Your task to perform on an android device: check storage Image 0: 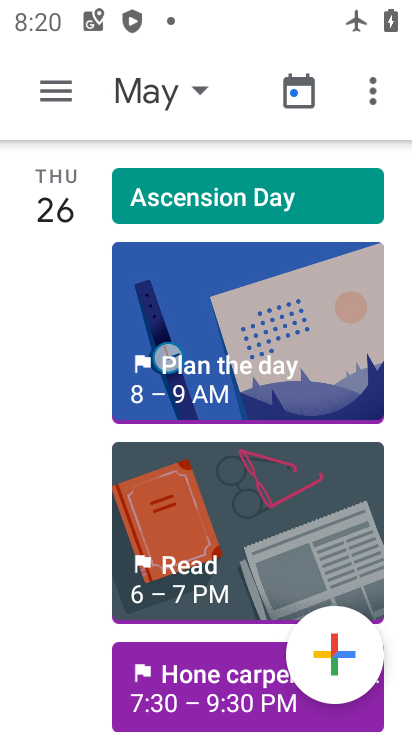
Step 0: press home button
Your task to perform on an android device: check storage Image 1: 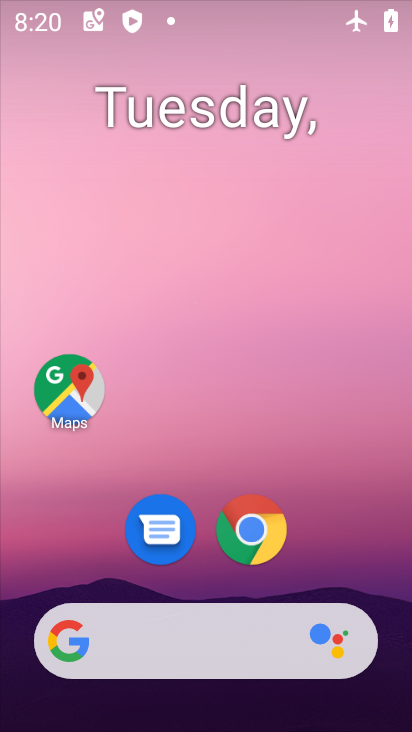
Step 1: drag from (194, 638) to (216, 119)
Your task to perform on an android device: check storage Image 2: 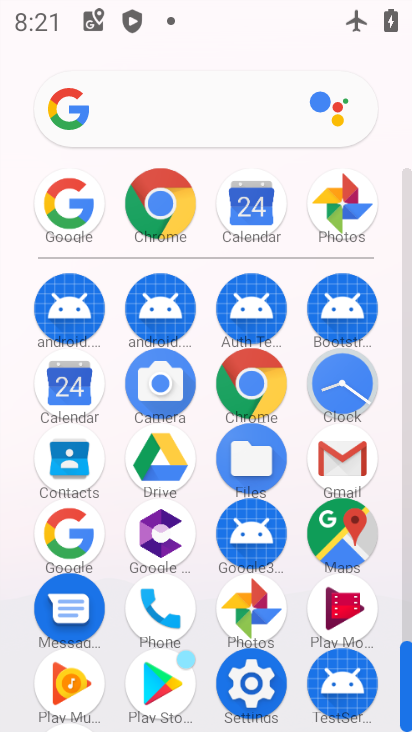
Step 2: drag from (263, 519) to (278, 192)
Your task to perform on an android device: check storage Image 3: 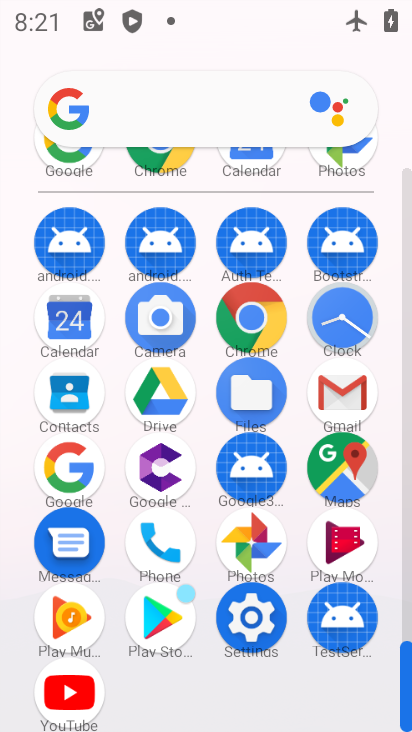
Step 3: click (262, 634)
Your task to perform on an android device: check storage Image 4: 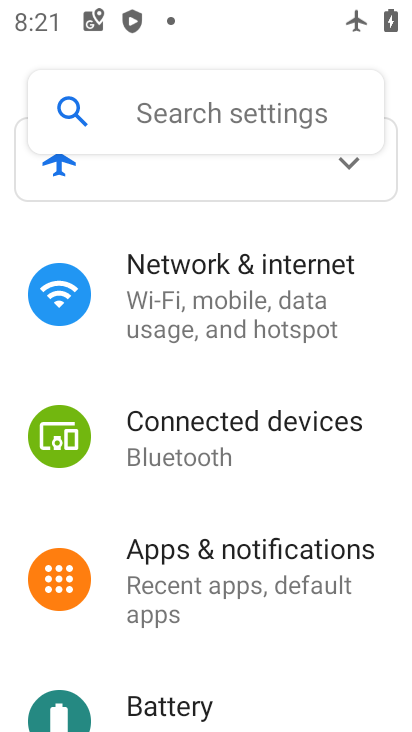
Step 4: drag from (261, 629) to (276, 164)
Your task to perform on an android device: check storage Image 5: 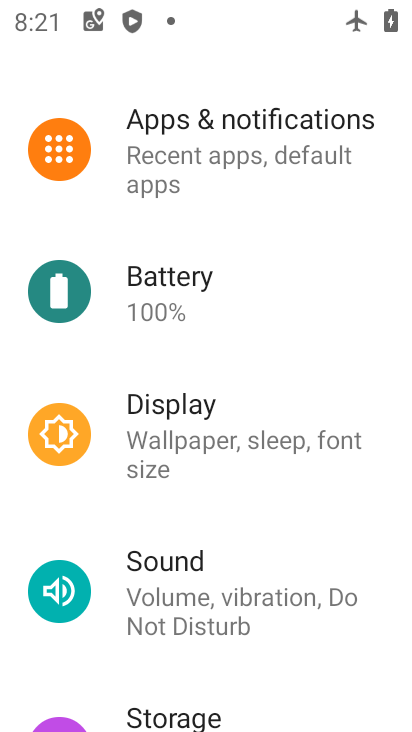
Step 5: drag from (222, 564) to (226, 135)
Your task to perform on an android device: check storage Image 6: 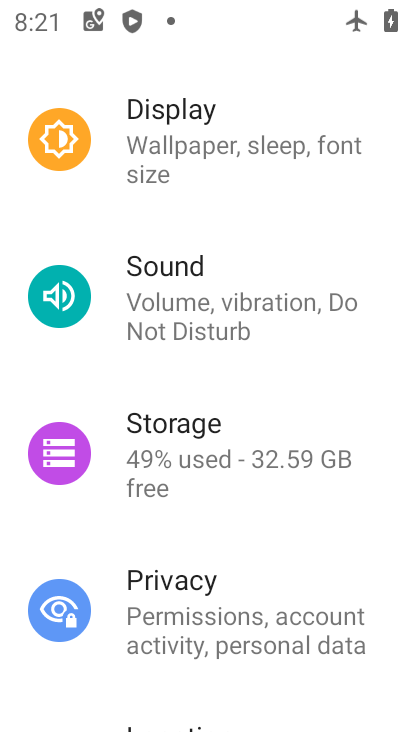
Step 6: click (274, 460)
Your task to perform on an android device: check storage Image 7: 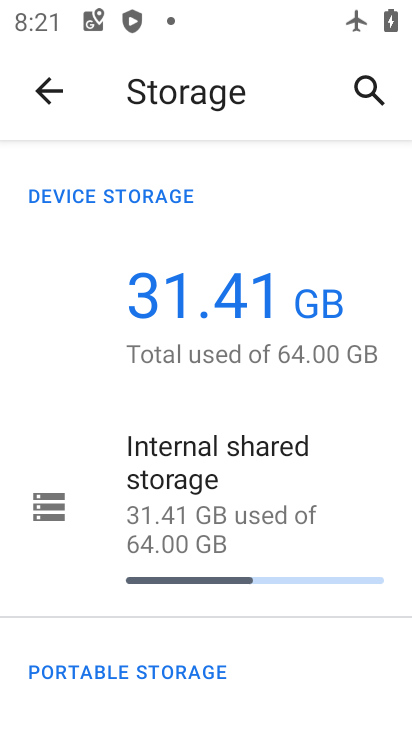
Step 7: click (268, 460)
Your task to perform on an android device: check storage Image 8: 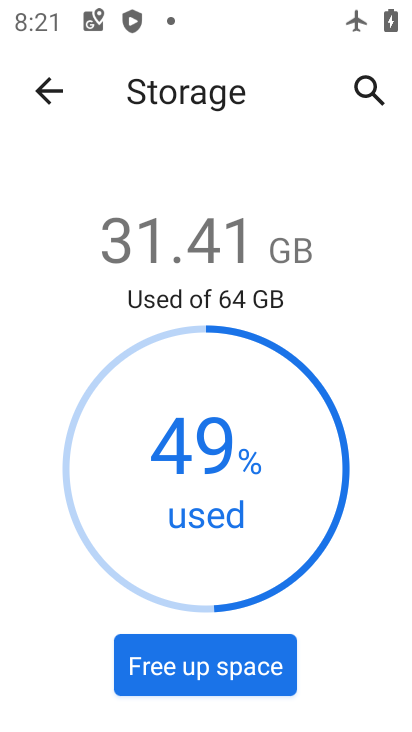
Step 8: task complete